Your task to perform on an android device: Search for Mexican restaurants on Maps Image 0: 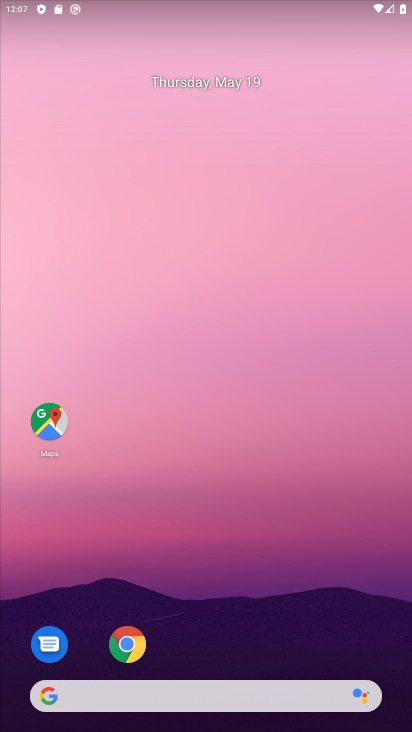
Step 0: drag from (319, 612) to (330, 159)
Your task to perform on an android device: Search for Mexican restaurants on Maps Image 1: 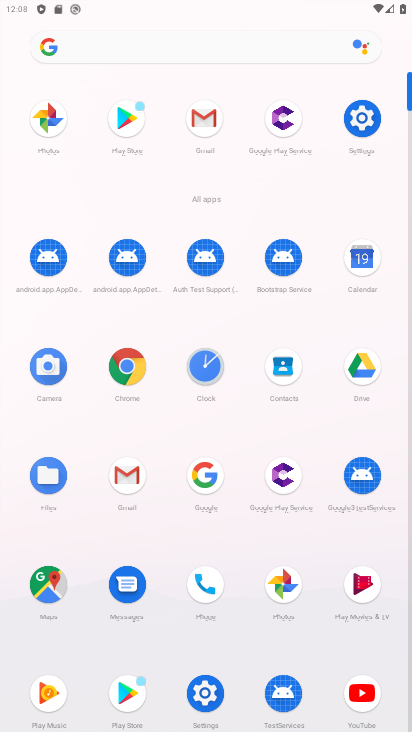
Step 1: click (36, 577)
Your task to perform on an android device: Search for Mexican restaurants on Maps Image 2: 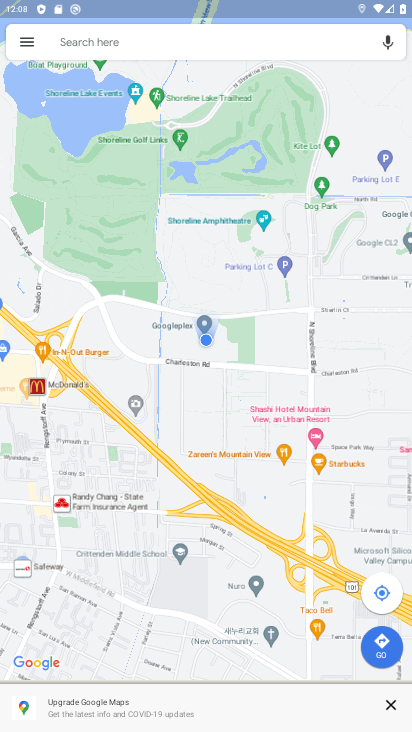
Step 2: click (207, 49)
Your task to perform on an android device: Search for Mexican restaurants on Maps Image 3: 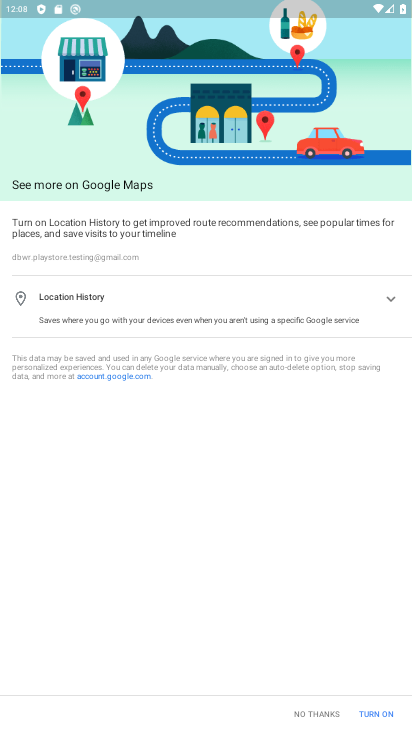
Step 3: click (314, 721)
Your task to perform on an android device: Search for Mexican restaurants on Maps Image 4: 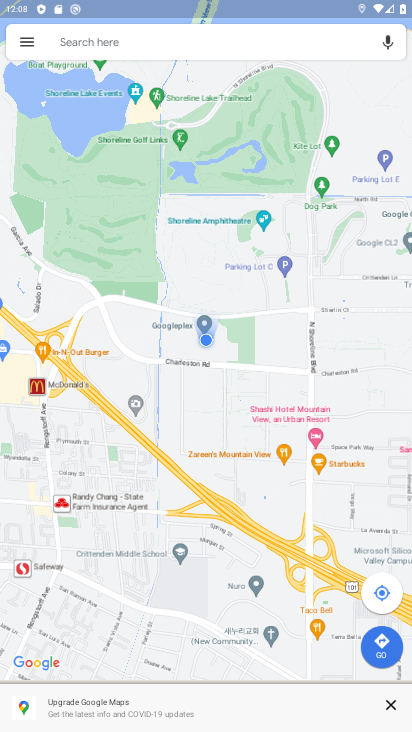
Step 4: click (225, 38)
Your task to perform on an android device: Search for Mexican restaurants on Maps Image 5: 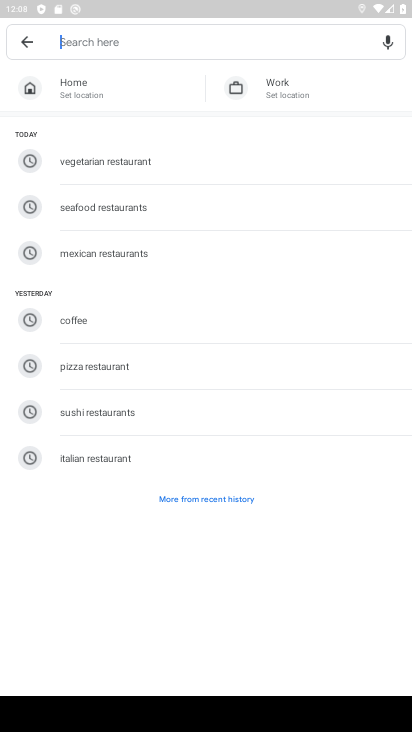
Step 5: click (222, 250)
Your task to perform on an android device: Search for Mexican restaurants on Maps Image 6: 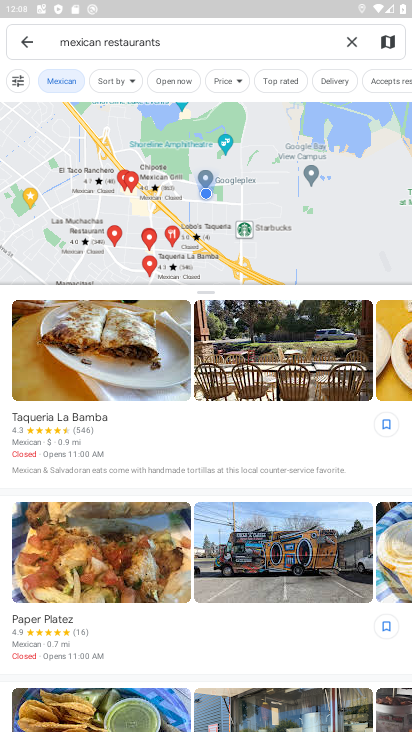
Step 6: task complete